Your task to perform on an android device: Open the web browser Image 0: 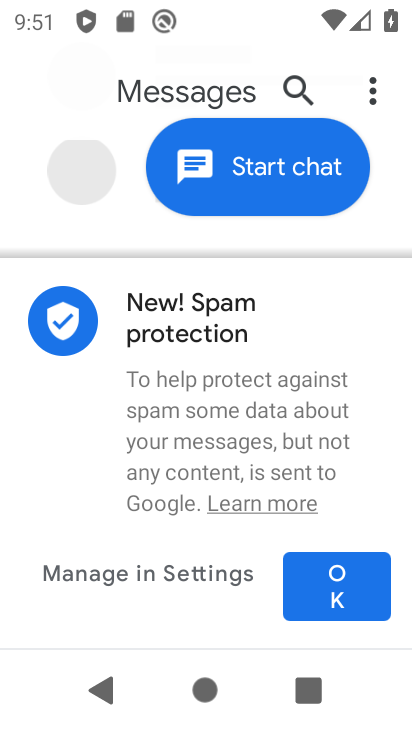
Step 0: press back button
Your task to perform on an android device: Open the web browser Image 1: 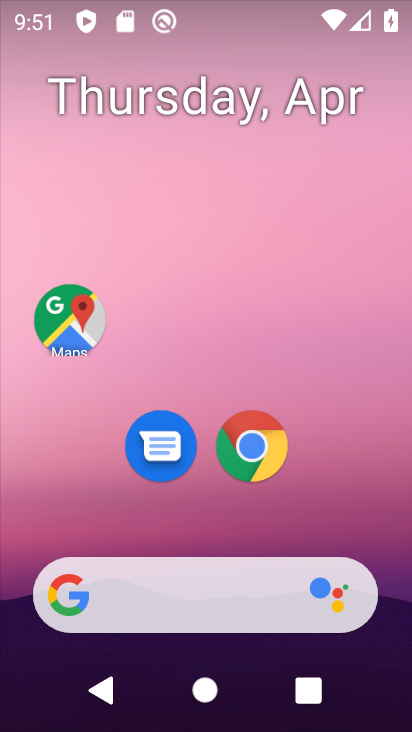
Step 1: drag from (332, 497) to (392, 33)
Your task to perform on an android device: Open the web browser Image 2: 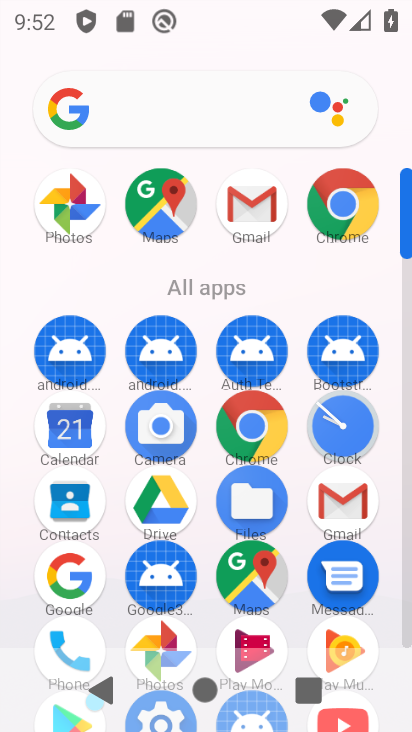
Step 2: click (354, 212)
Your task to perform on an android device: Open the web browser Image 3: 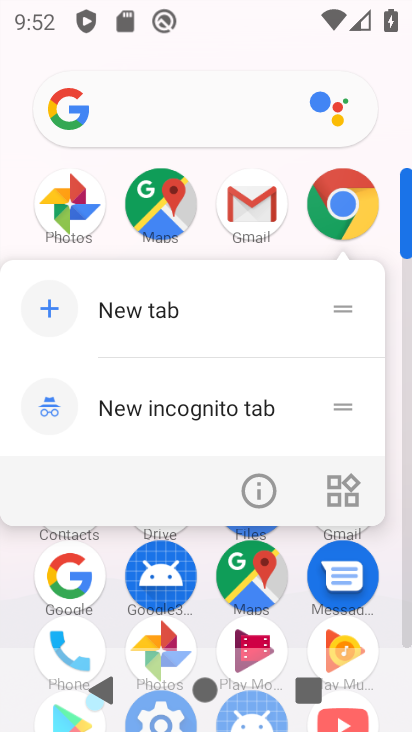
Step 3: click (354, 212)
Your task to perform on an android device: Open the web browser Image 4: 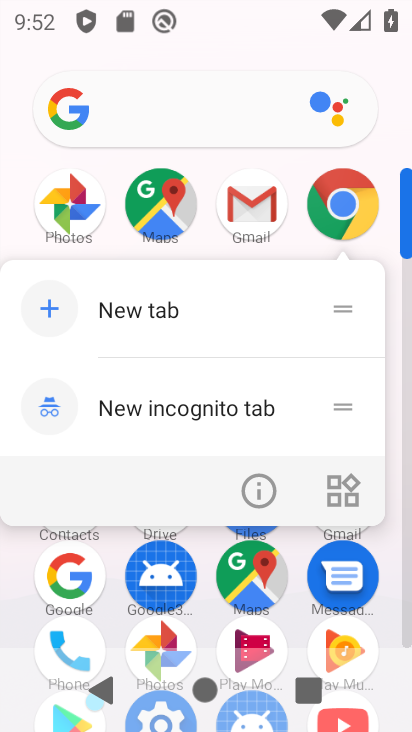
Step 4: click (354, 212)
Your task to perform on an android device: Open the web browser Image 5: 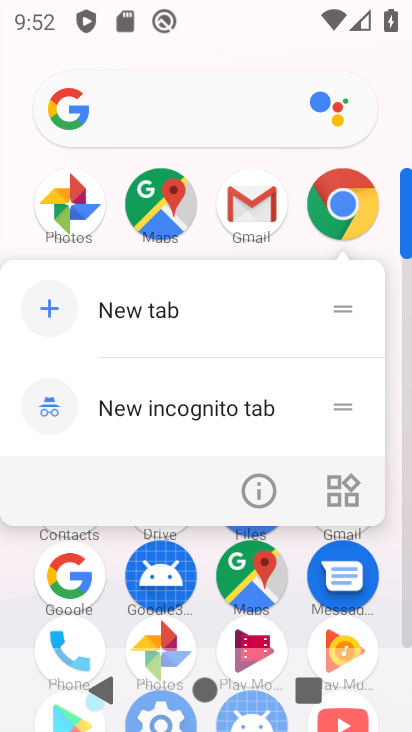
Step 5: click (354, 212)
Your task to perform on an android device: Open the web browser Image 6: 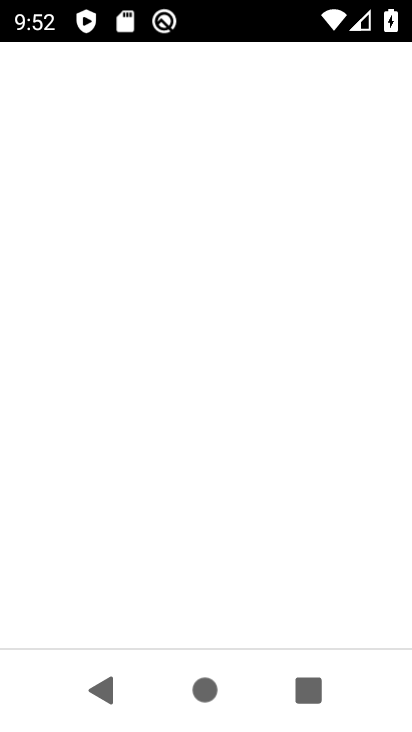
Step 6: click (354, 212)
Your task to perform on an android device: Open the web browser Image 7: 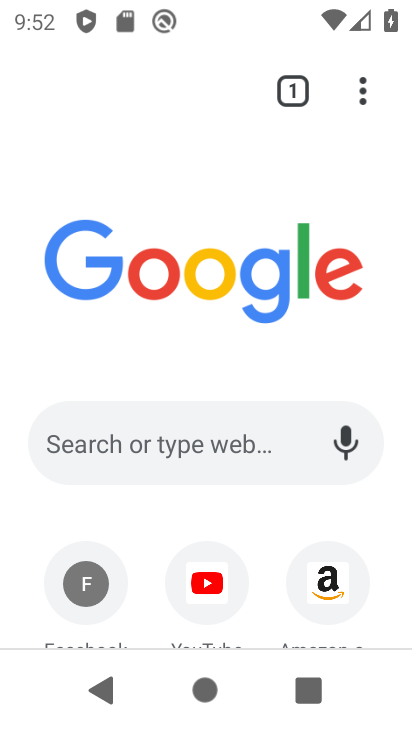
Step 7: task complete